Your task to perform on an android device: manage bookmarks in the chrome app Image 0: 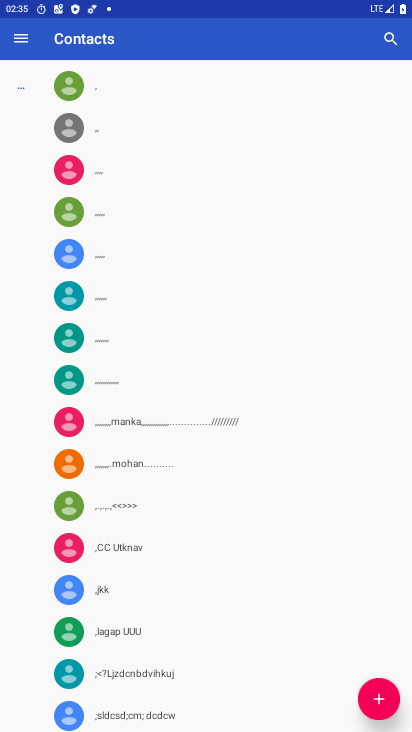
Step 0: press home button
Your task to perform on an android device: manage bookmarks in the chrome app Image 1: 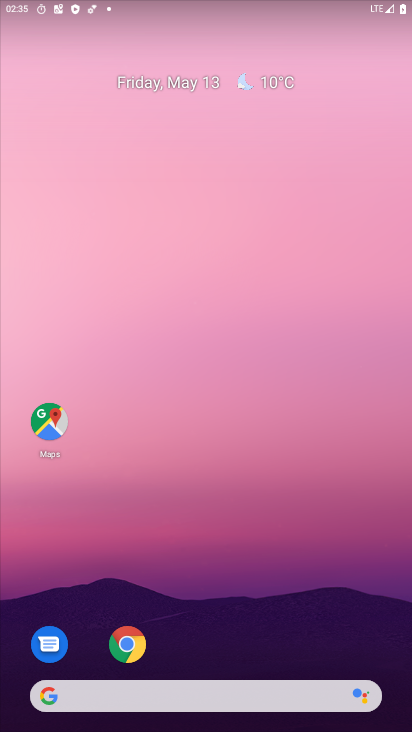
Step 1: drag from (226, 666) to (232, 18)
Your task to perform on an android device: manage bookmarks in the chrome app Image 2: 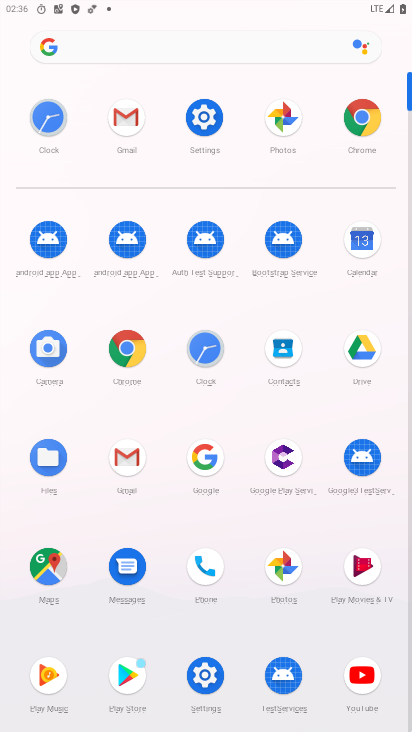
Step 2: click (136, 344)
Your task to perform on an android device: manage bookmarks in the chrome app Image 3: 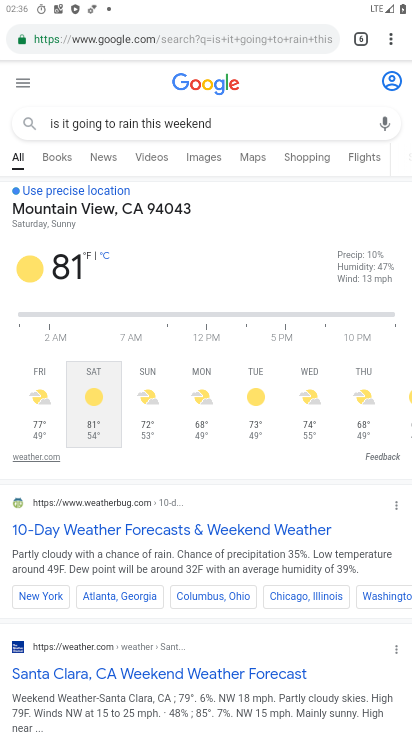
Step 3: click (394, 36)
Your task to perform on an android device: manage bookmarks in the chrome app Image 4: 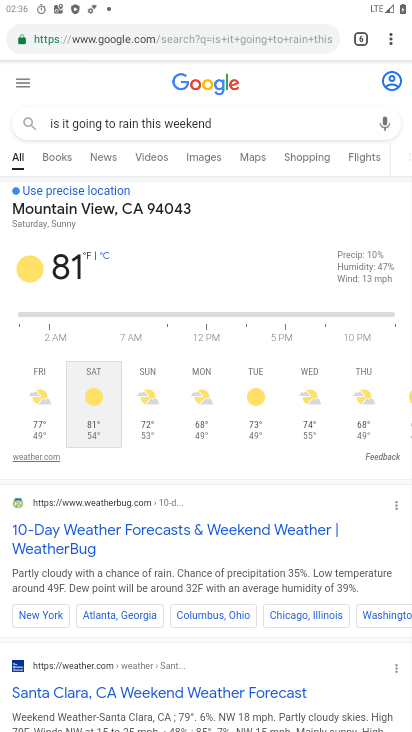
Step 4: click (387, 35)
Your task to perform on an android device: manage bookmarks in the chrome app Image 5: 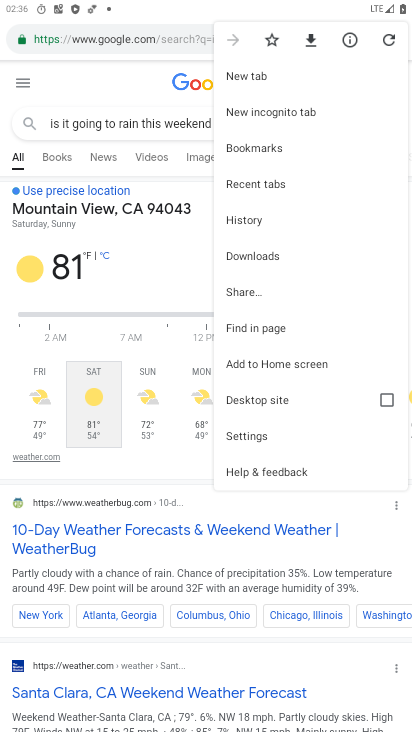
Step 5: click (289, 153)
Your task to perform on an android device: manage bookmarks in the chrome app Image 6: 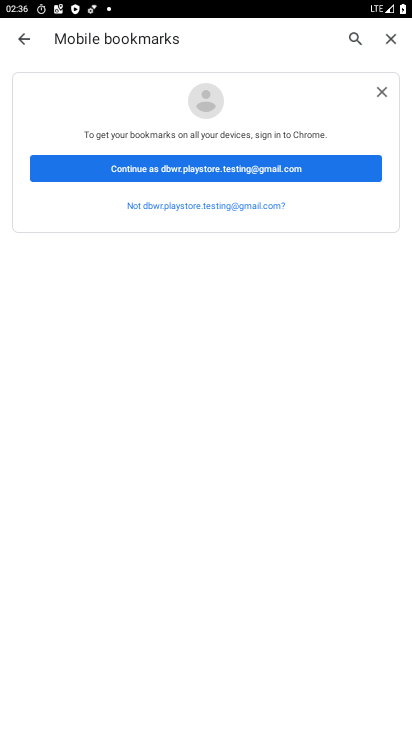
Step 6: task complete